Your task to perform on an android device: Go to ESPN.com Image 0: 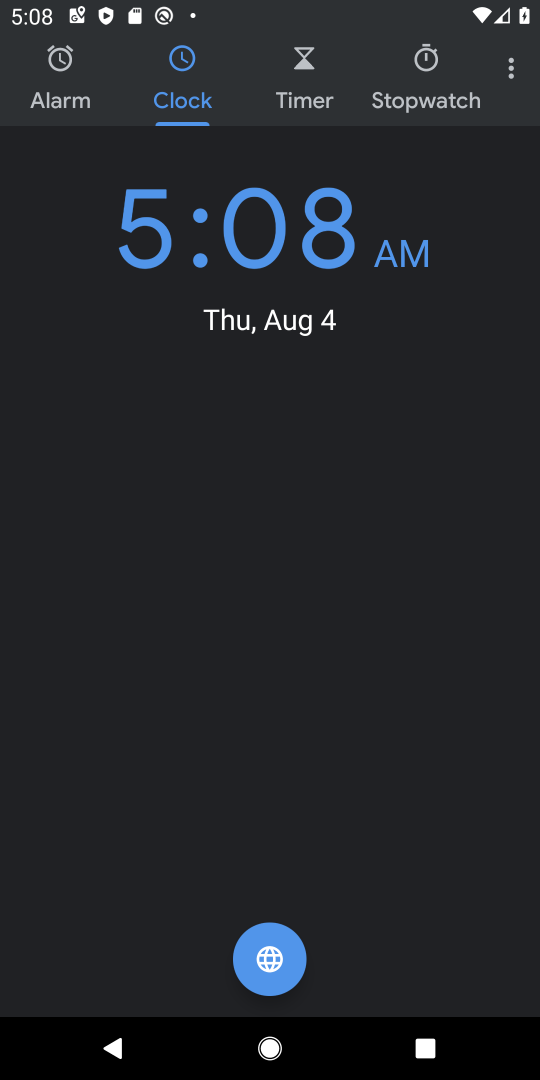
Step 0: press home button
Your task to perform on an android device: Go to ESPN.com Image 1: 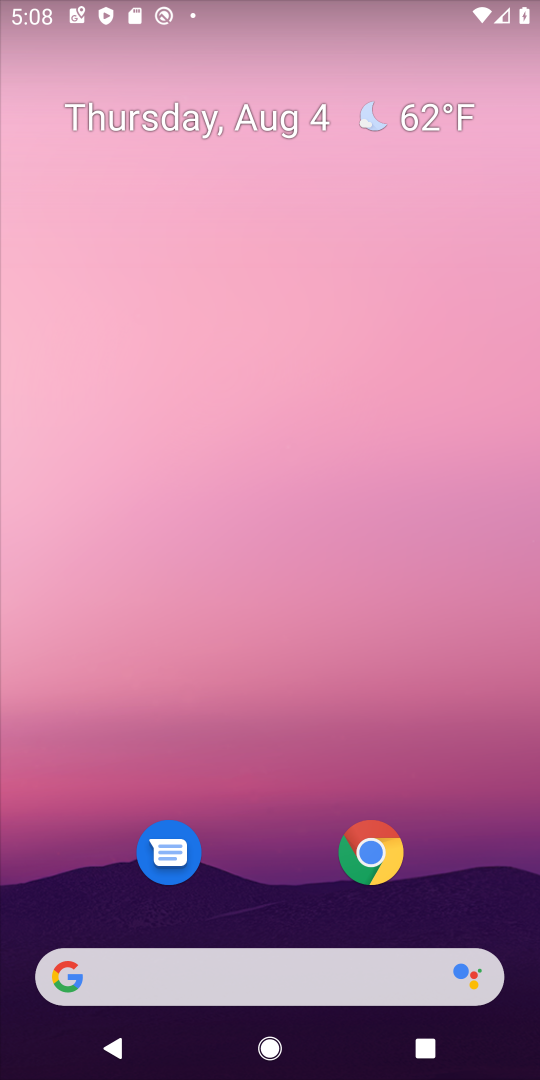
Step 1: drag from (237, 523) to (237, 105)
Your task to perform on an android device: Go to ESPN.com Image 2: 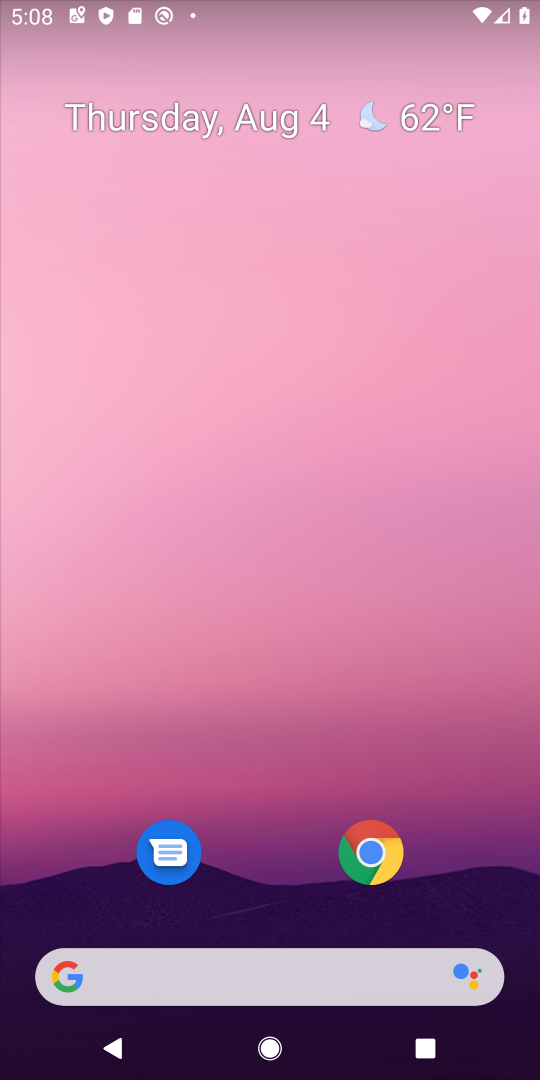
Step 2: click (365, 852)
Your task to perform on an android device: Go to ESPN.com Image 3: 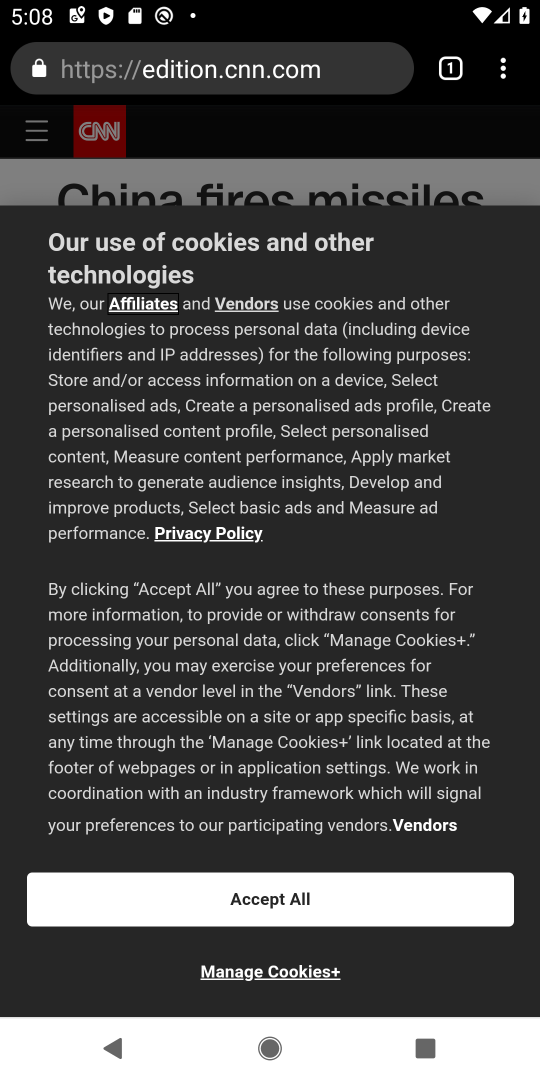
Step 3: click (504, 75)
Your task to perform on an android device: Go to ESPN.com Image 4: 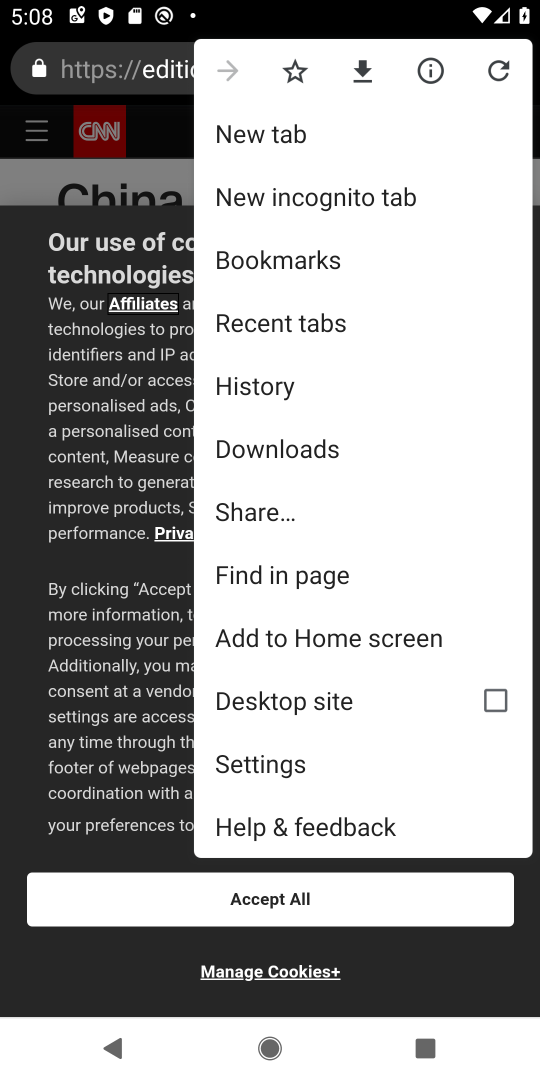
Step 4: click (277, 134)
Your task to perform on an android device: Go to ESPN.com Image 5: 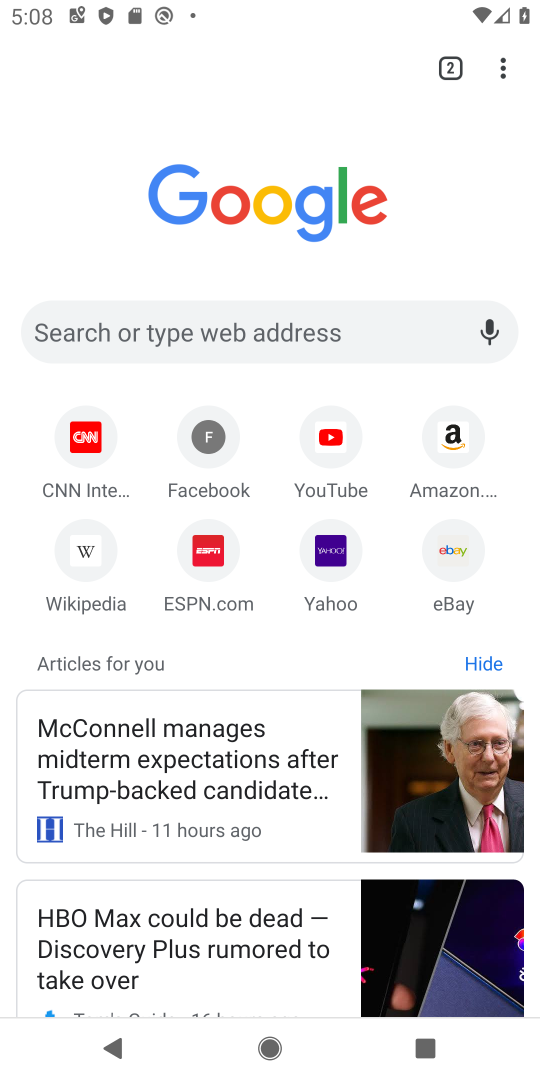
Step 5: click (206, 558)
Your task to perform on an android device: Go to ESPN.com Image 6: 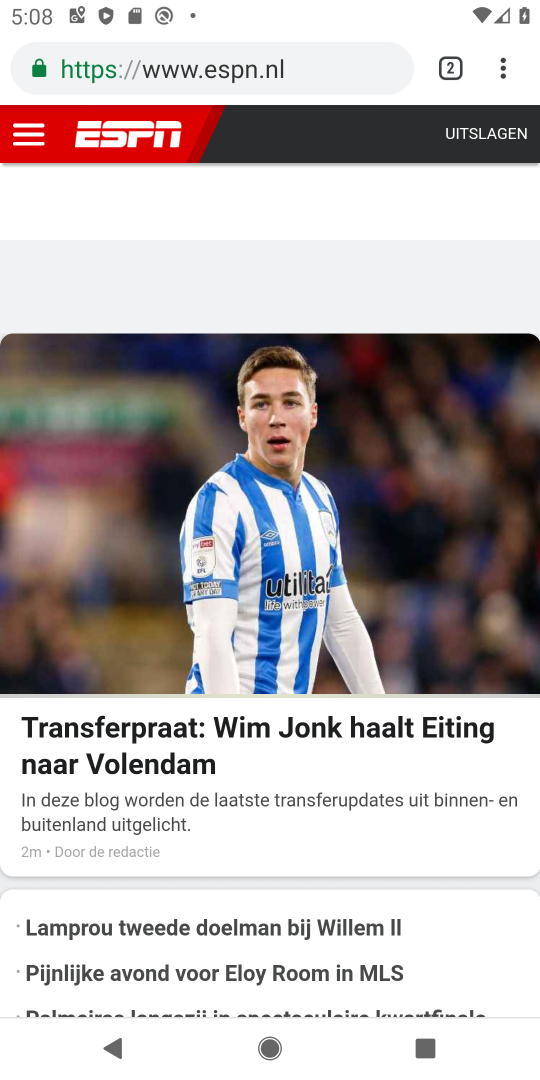
Step 6: task complete